Your task to perform on an android device: open a new tab in the chrome app Image 0: 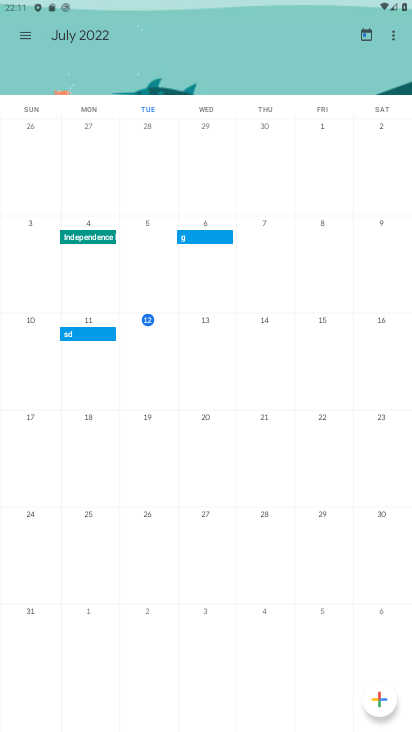
Step 0: press home button
Your task to perform on an android device: open a new tab in the chrome app Image 1: 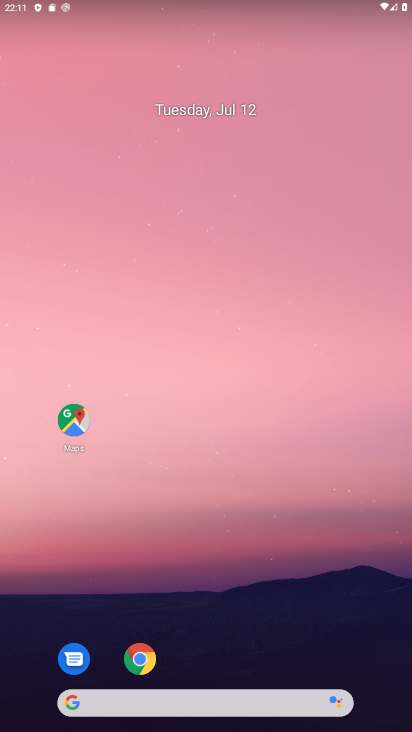
Step 1: drag from (246, 627) to (300, 287)
Your task to perform on an android device: open a new tab in the chrome app Image 2: 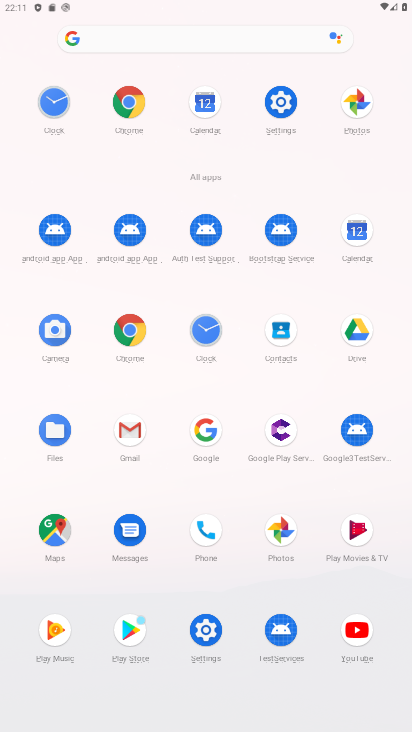
Step 2: click (138, 323)
Your task to perform on an android device: open a new tab in the chrome app Image 3: 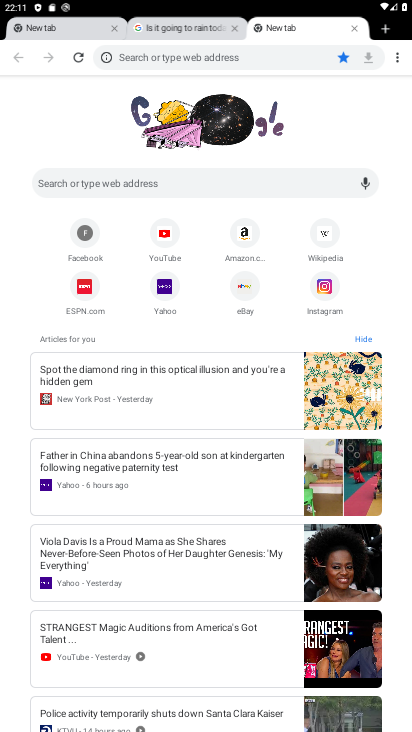
Step 3: click (382, 28)
Your task to perform on an android device: open a new tab in the chrome app Image 4: 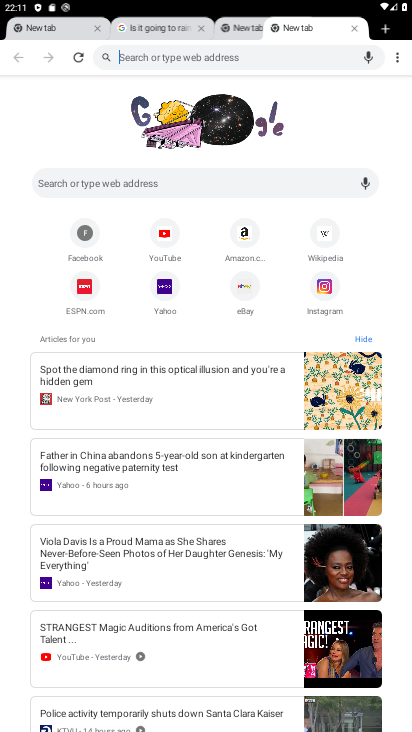
Step 4: task complete